Your task to perform on an android device: Clear the shopping cart on ebay. Add razer deathadder to the cart on ebay, then select checkout. Image 0: 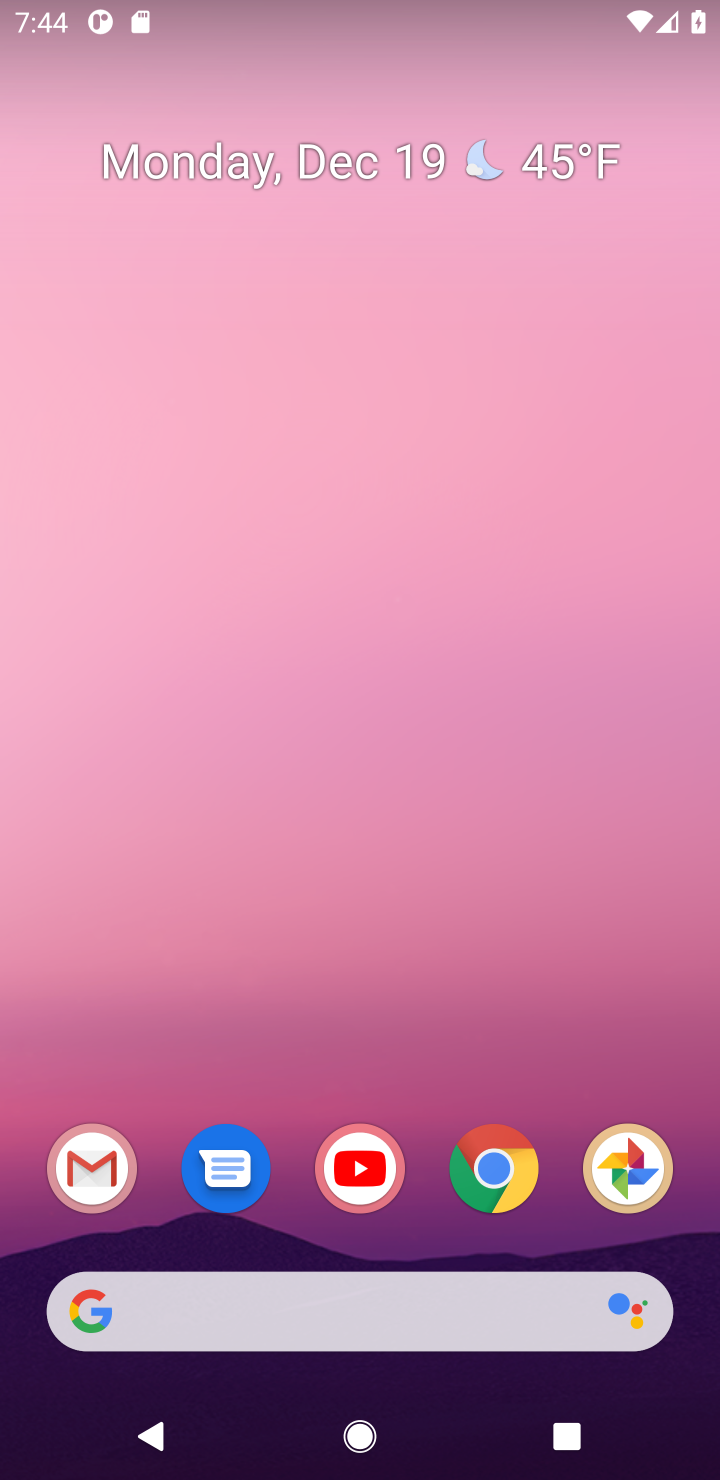
Step 0: click (497, 1188)
Your task to perform on an android device: Clear the shopping cart on ebay. Add razer deathadder to the cart on ebay, then select checkout. Image 1: 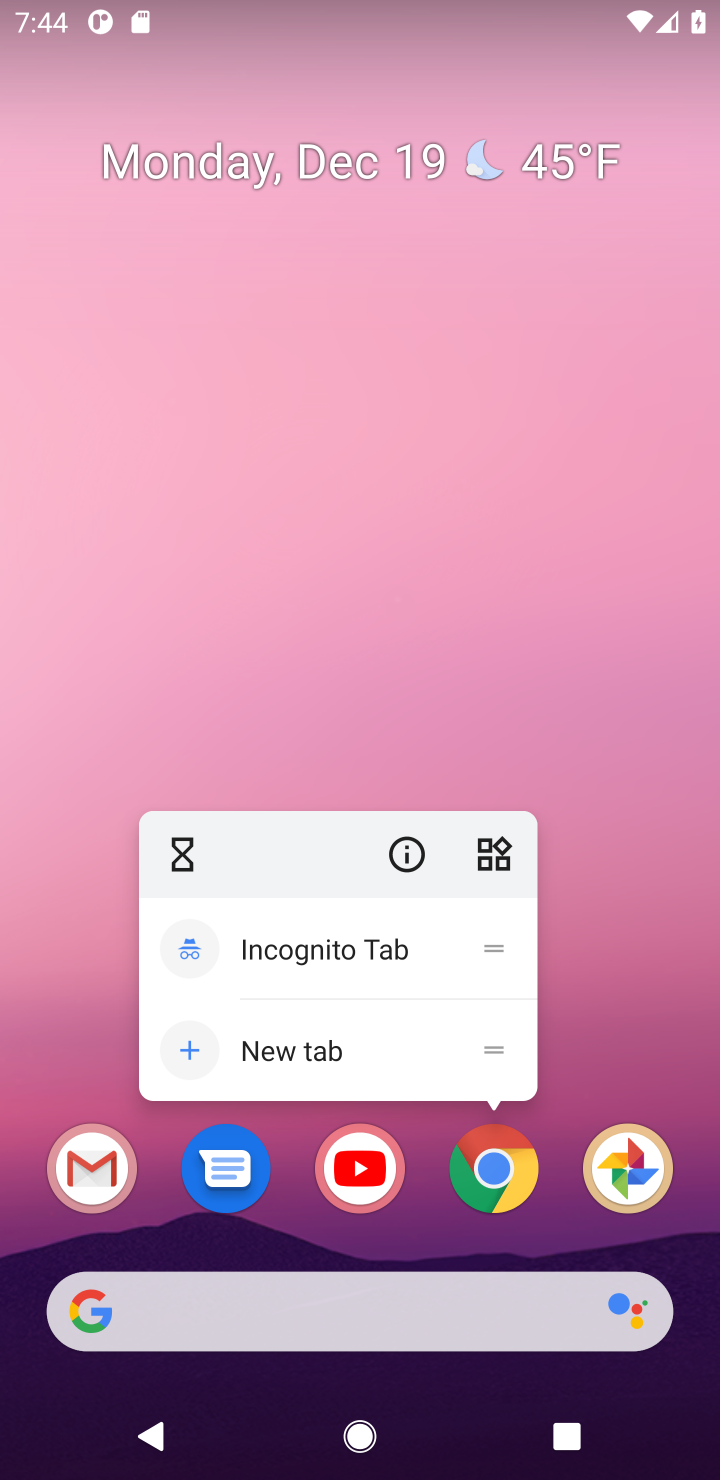
Step 1: click (483, 1161)
Your task to perform on an android device: Clear the shopping cart on ebay. Add razer deathadder to the cart on ebay, then select checkout. Image 2: 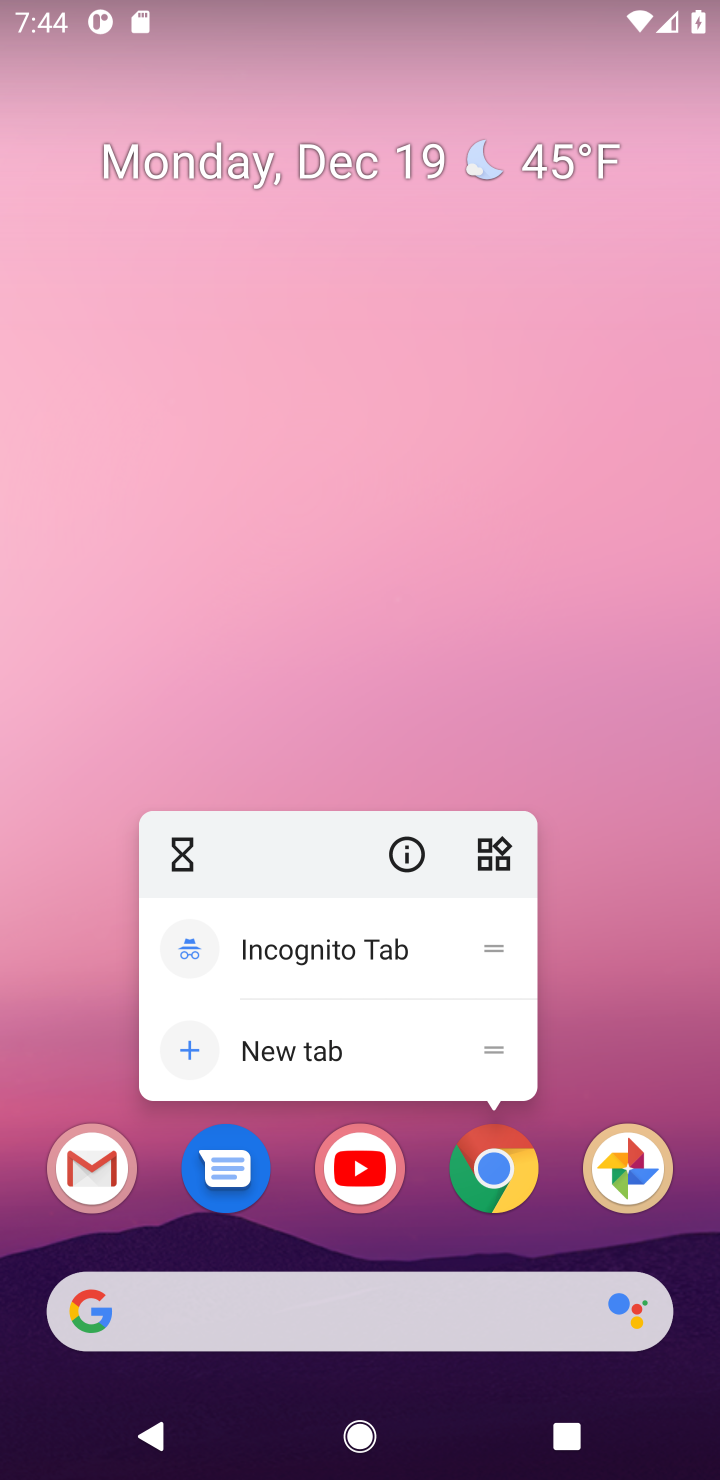
Step 2: click (493, 1172)
Your task to perform on an android device: Clear the shopping cart on ebay. Add razer deathadder to the cart on ebay, then select checkout. Image 3: 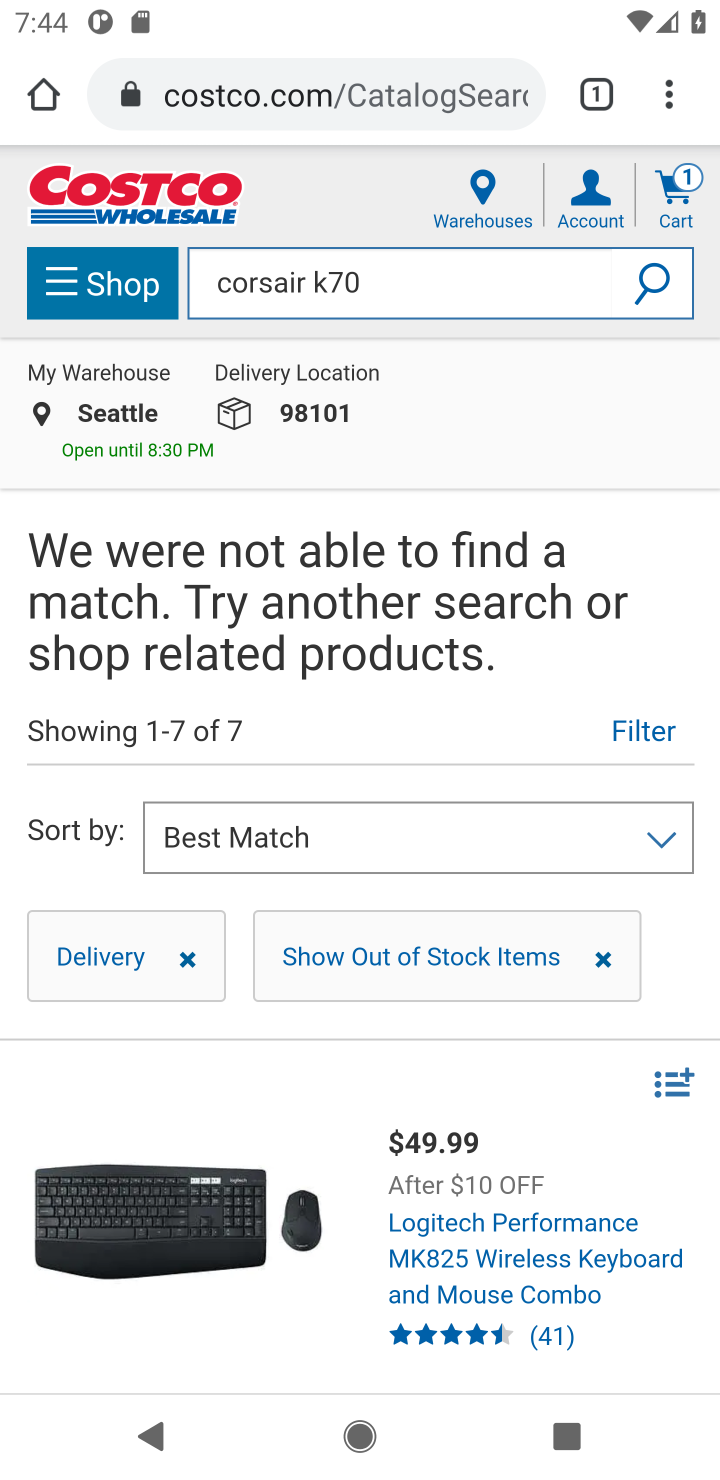
Step 3: click (268, 93)
Your task to perform on an android device: Clear the shopping cart on ebay. Add razer deathadder to the cart on ebay, then select checkout. Image 4: 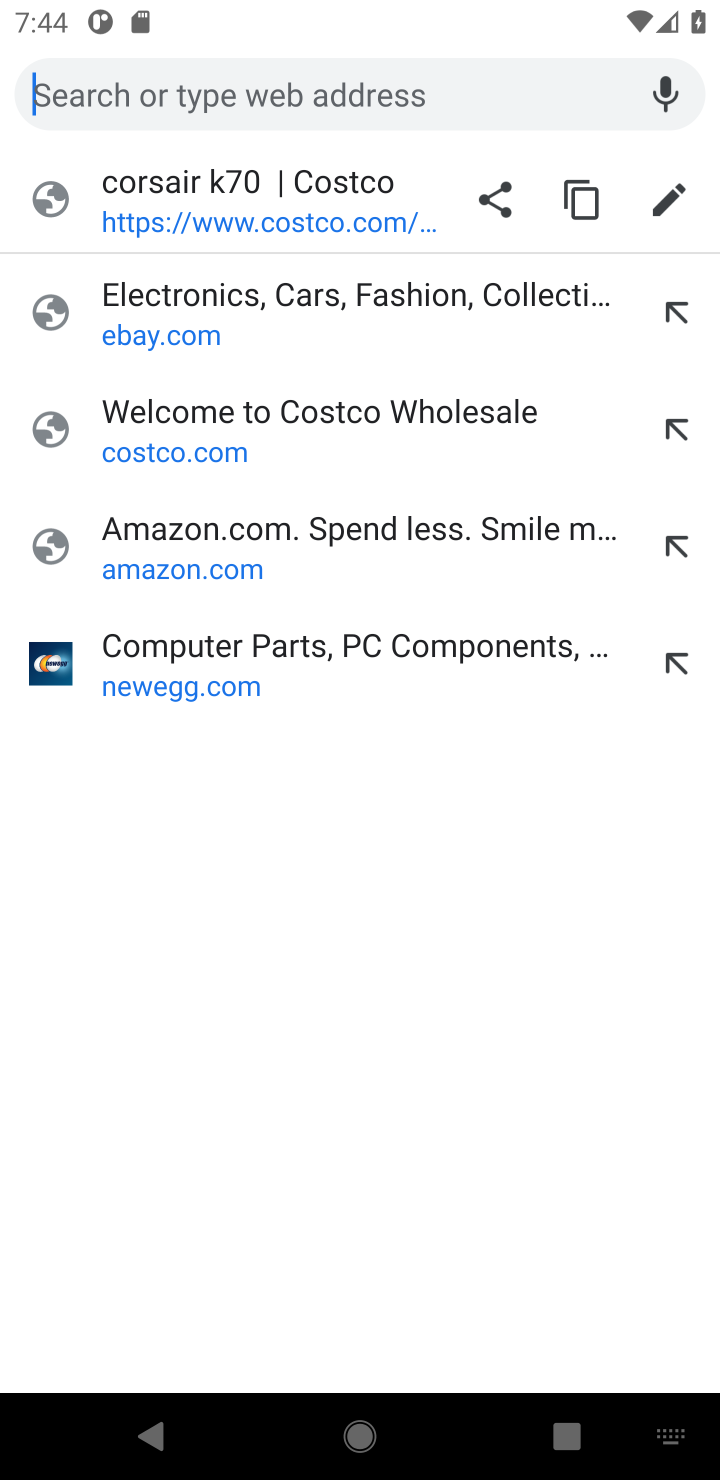
Step 4: click (129, 327)
Your task to perform on an android device: Clear the shopping cart on ebay. Add razer deathadder to the cart on ebay, then select checkout. Image 5: 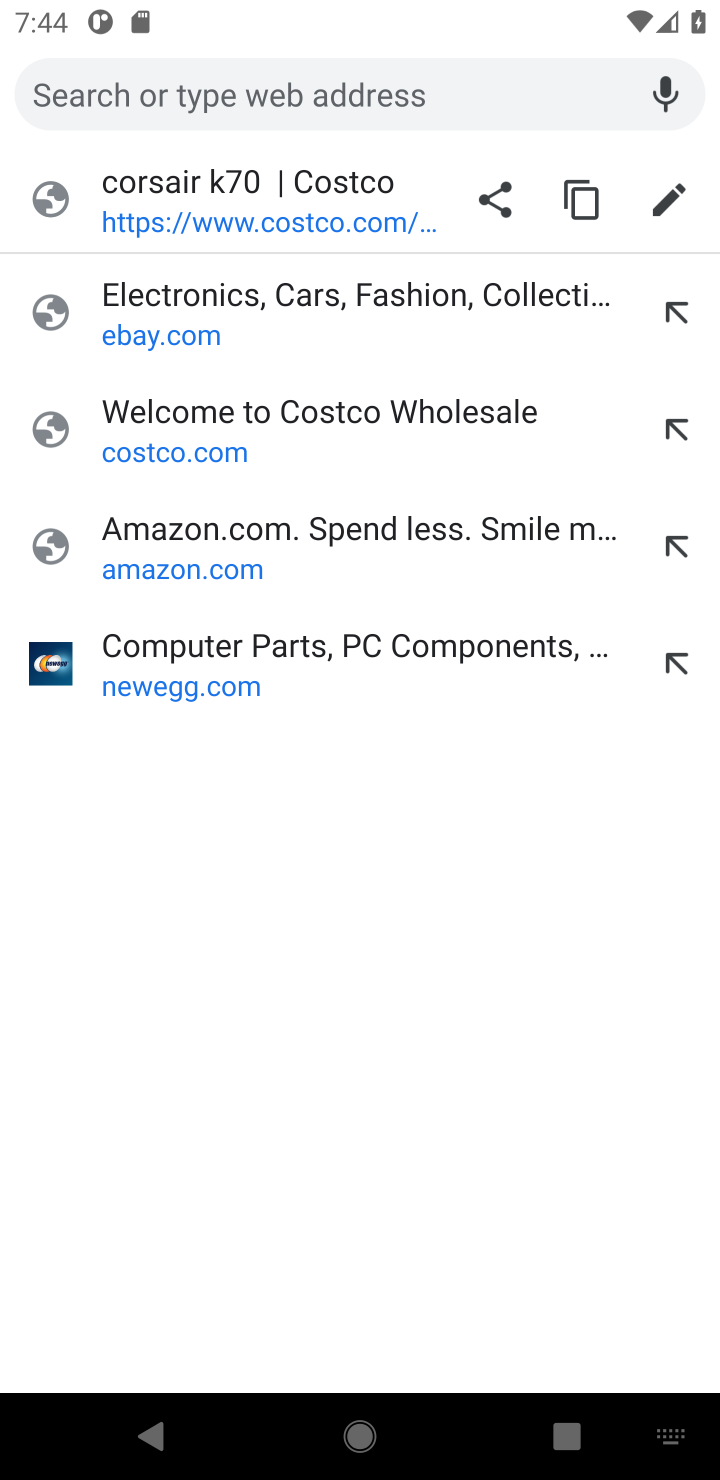
Step 5: click (129, 327)
Your task to perform on an android device: Clear the shopping cart on ebay. Add razer deathadder to the cart on ebay, then select checkout. Image 6: 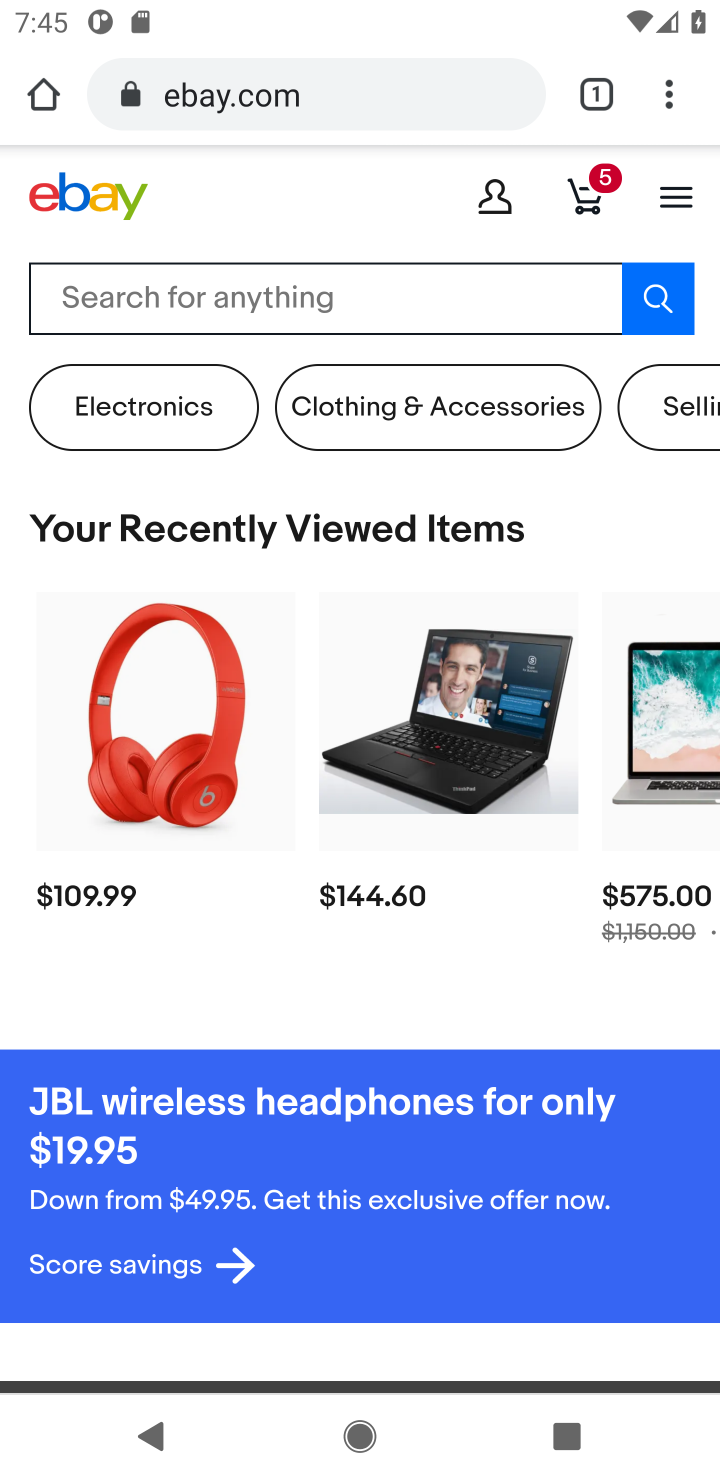
Step 6: click (582, 200)
Your task to perform on an android device: Clear the shopping cart on ebay. Add razer deathadder to the cart on ebay, then select checkout. Image 7: 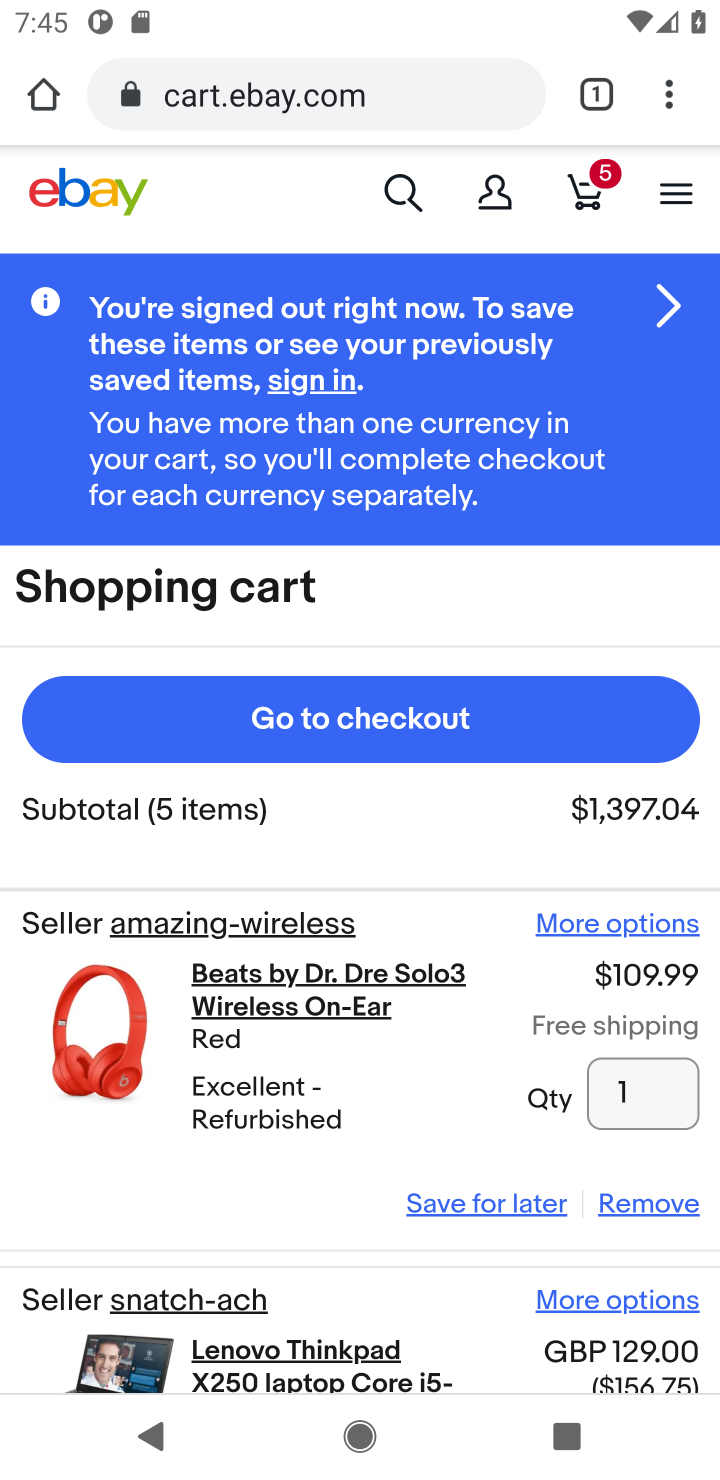
Step 7: click (624, 1204)
Your task to perform on an android device: Clear the shopping cart on ebay. Add razer deathadder to the cart on ebay, then select checkout. Image 8: 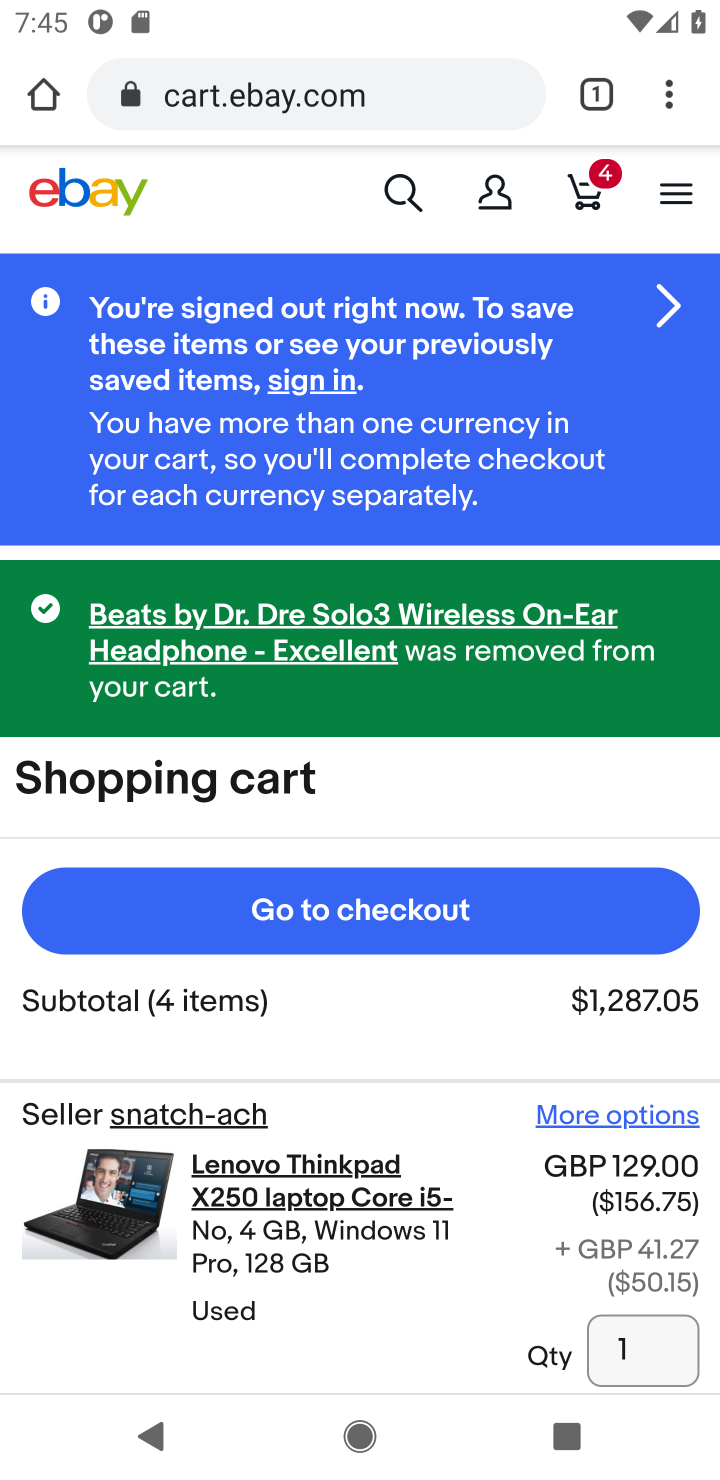
Step 8: drag from (511, 1130) to (480, 549)
Your task to perform on an android device: Clear the shopping cart on ebay. Add razer deathadder to the cart on ebay, then select checkout. Image 9: 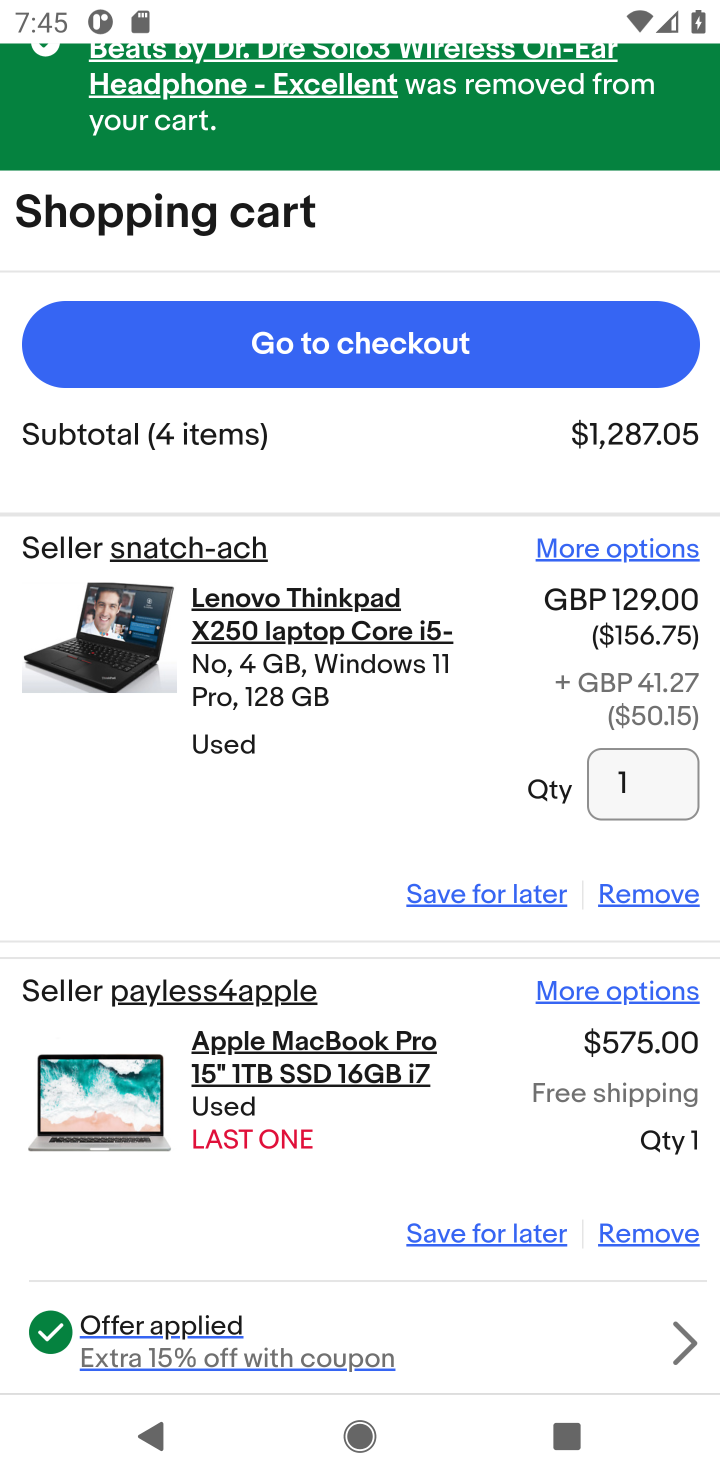
Step 9: click (649, 890)
Your task to perform on an android device: Clear the shopping cart on ebay. Add razer deathadder to the cart on ebay, then select checkout. Image 10: 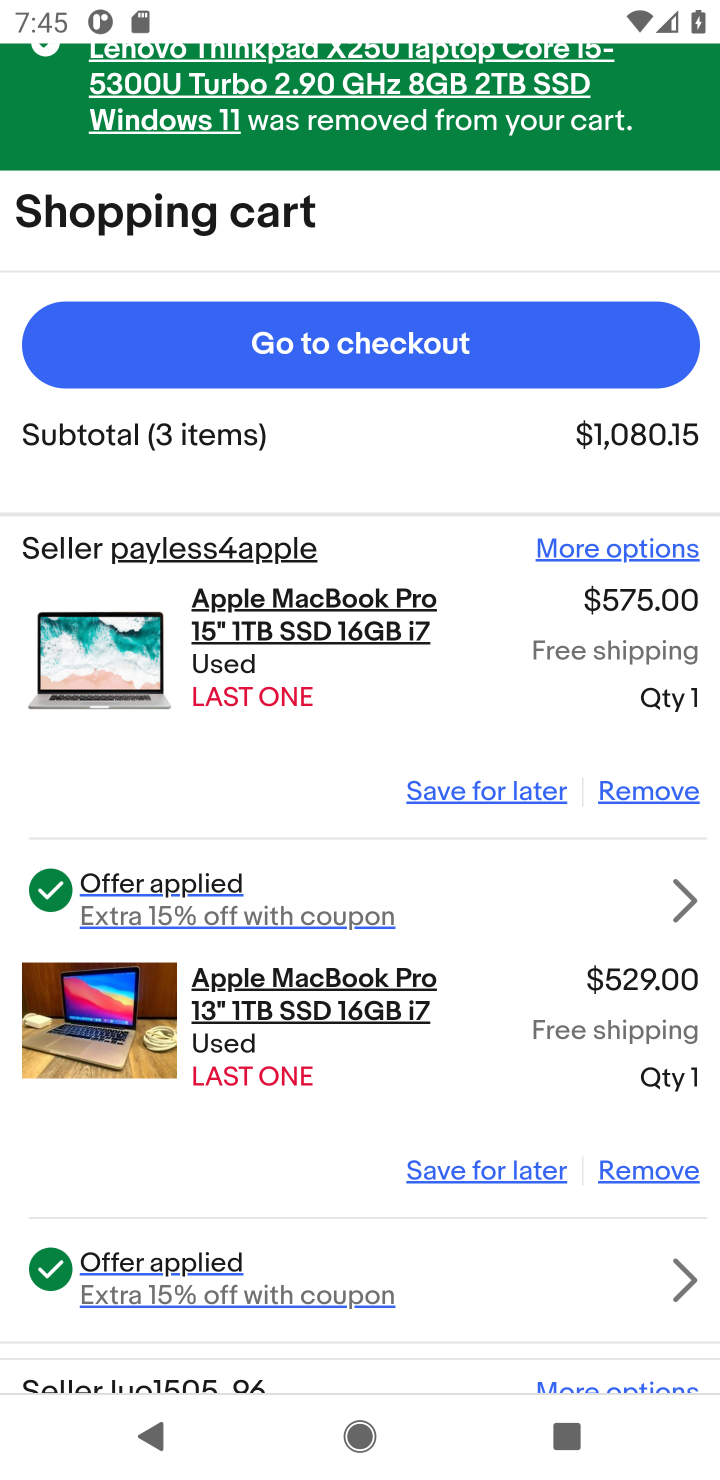
Step 10: click (644, 801)
Your task to perform on an android device: Clear the shopping cart on ebay. Add razer deathadder to the cart on ebay, then select checkout. Image 11: 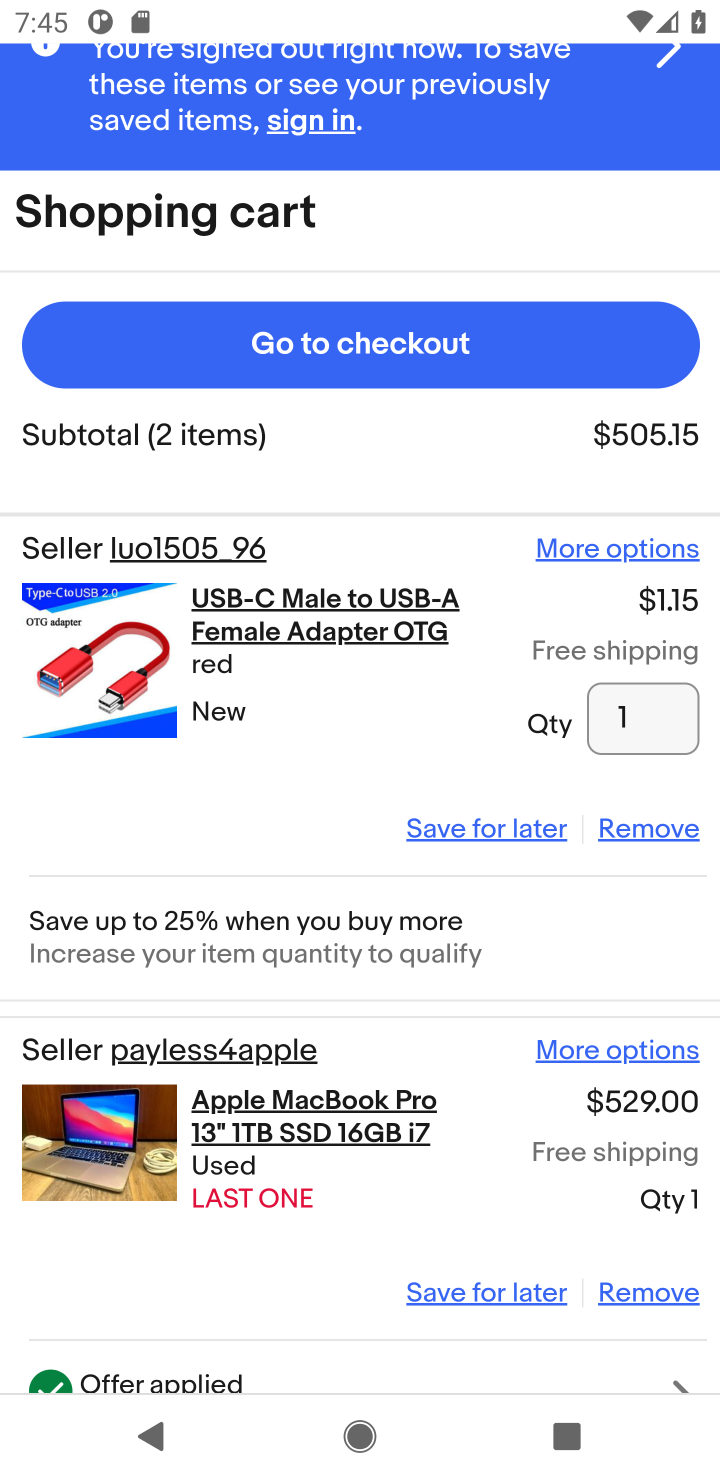
Step 11: click (627, 838)
Your task to perform on an android device: Clear the shopping cart on ebay. Add razer deathadder to the cart on ebay, then select checkout. Image 12: 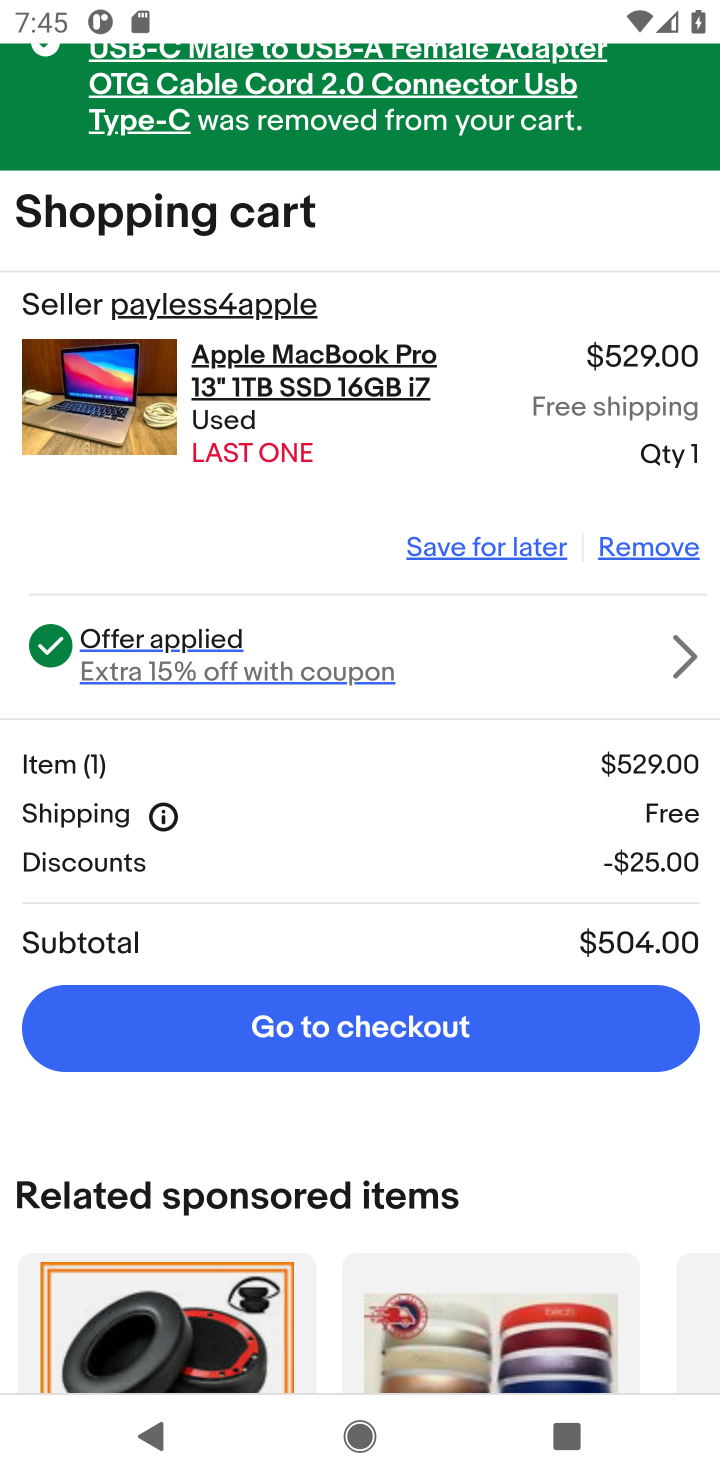
Step 12: click (650, 535)
Your task to perform on an android device: Clear the shopping cart on ebay. Add razer deathadder to the cart on ebay, then select checkout. Image 13: 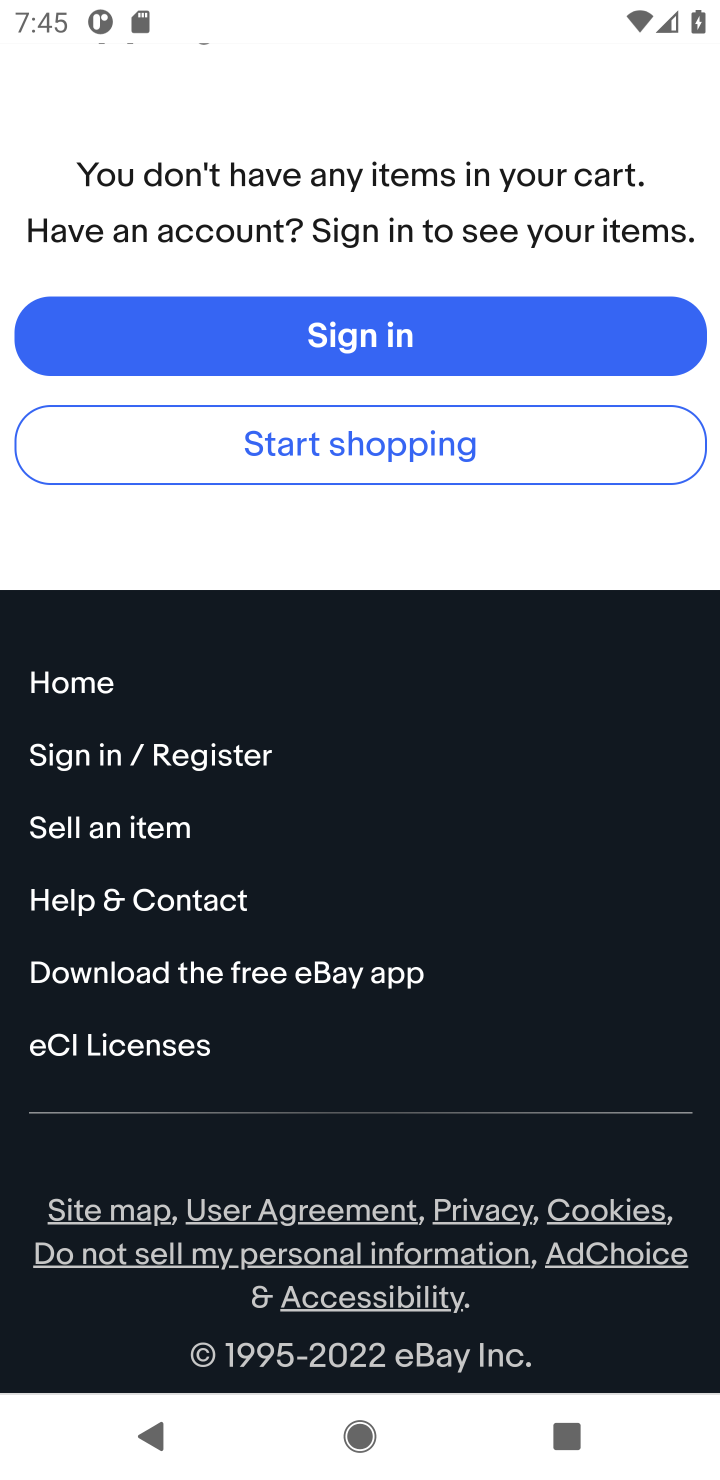
Step 13: drag from (650, 535) to (717, 1074)
Your task to perform on an android device: Clear the shopping cart on ebay. Add razer deathadder to the cart on ebay, then select checkout. Image 14: 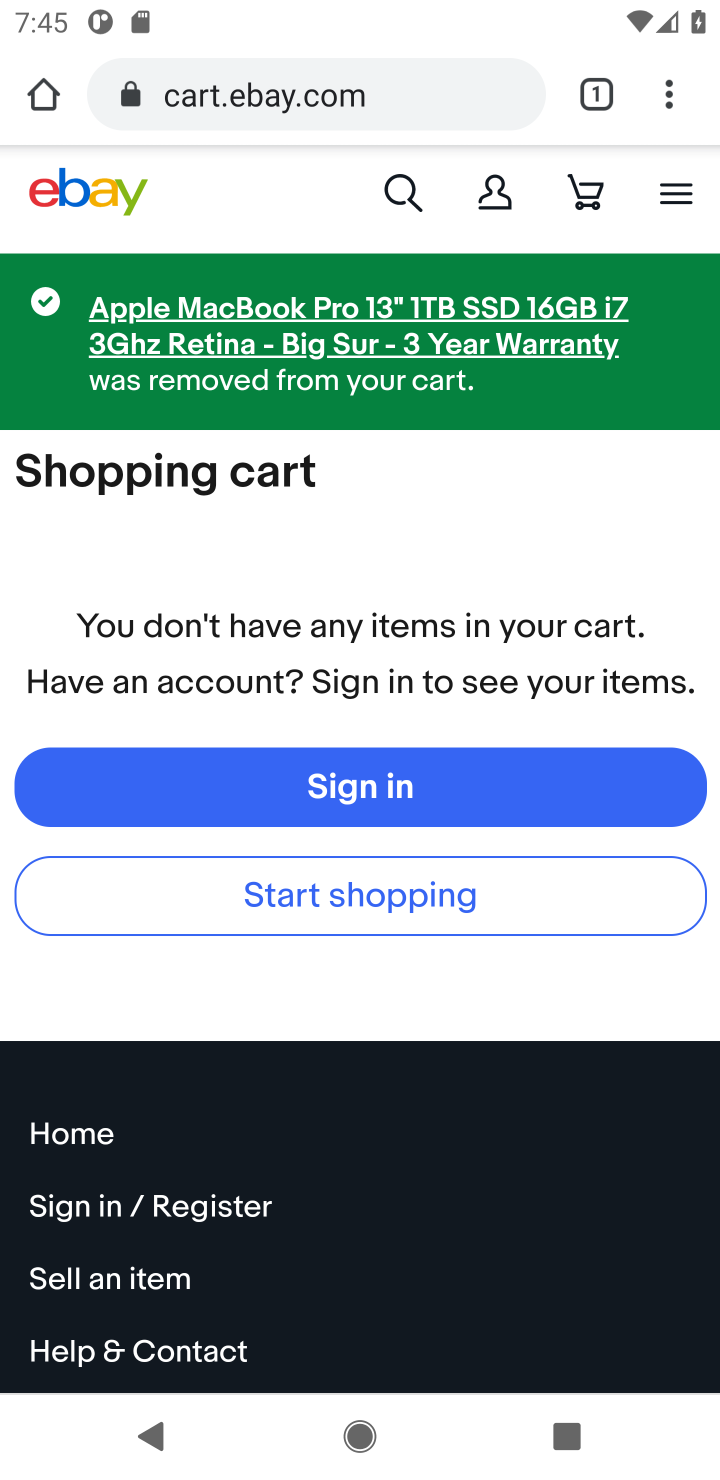
Step 14: click (405, 188)
Your task to perform on an android device: Clear the shopping cart on ebay. Add razer deathadder to the cart on ebay, then select checkout. Image 15: 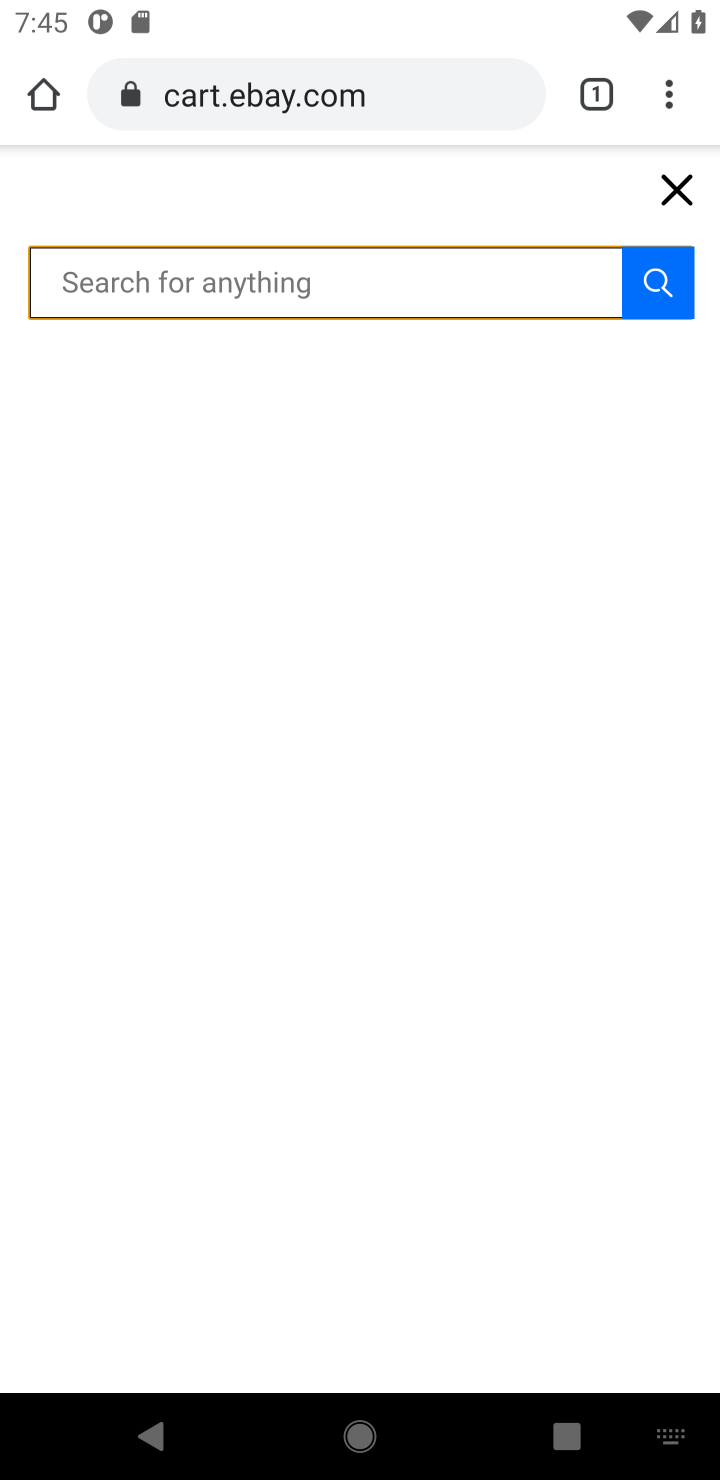
Step 15: type "razer deathadder"
Your task to perform on an android device: Clear the shopping cart on ebay. Add razer deathadder to the cart on ebay, then select checkout. Image 16: 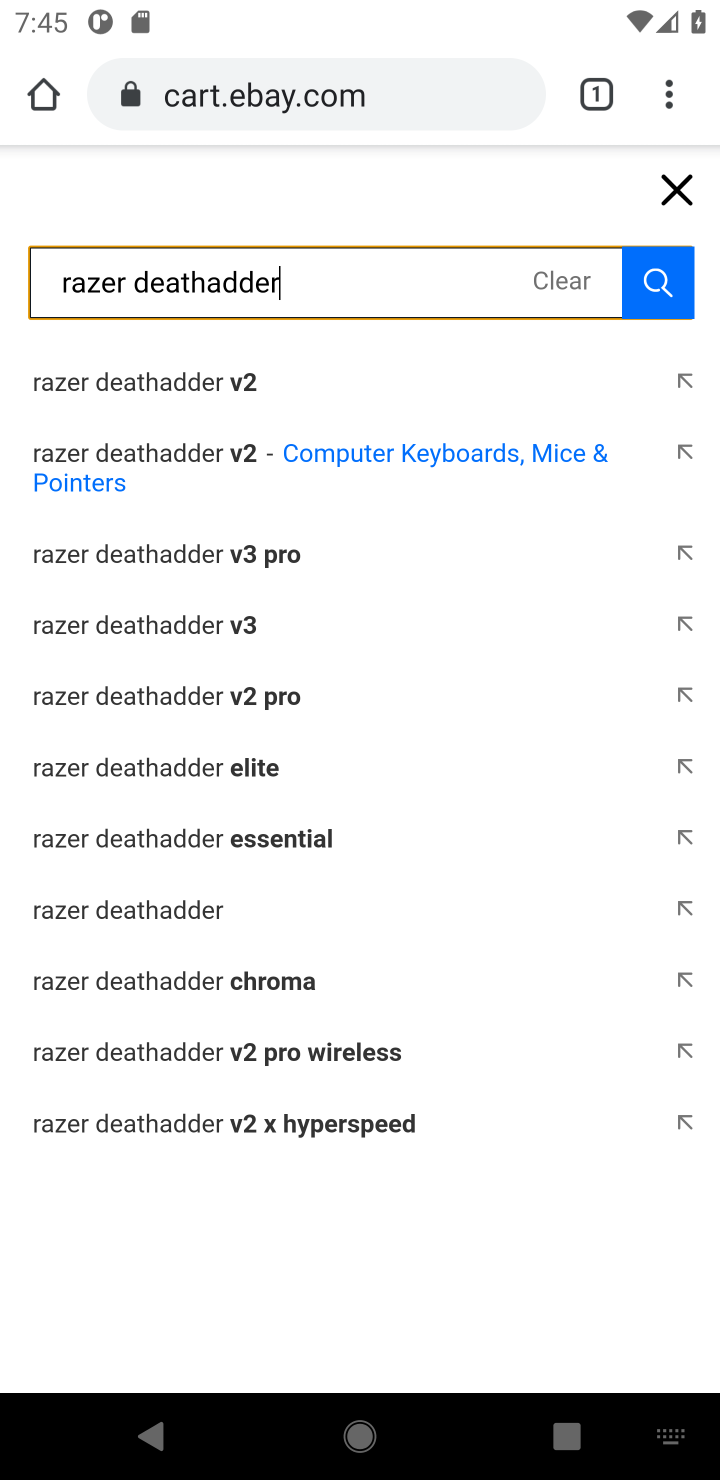
Step 16: click (73, 925)
Your task to perform on an android device: Clear the shopping cart on ebay. Add razer deathadder to the cart on ebay, then select checkout. Image 17: 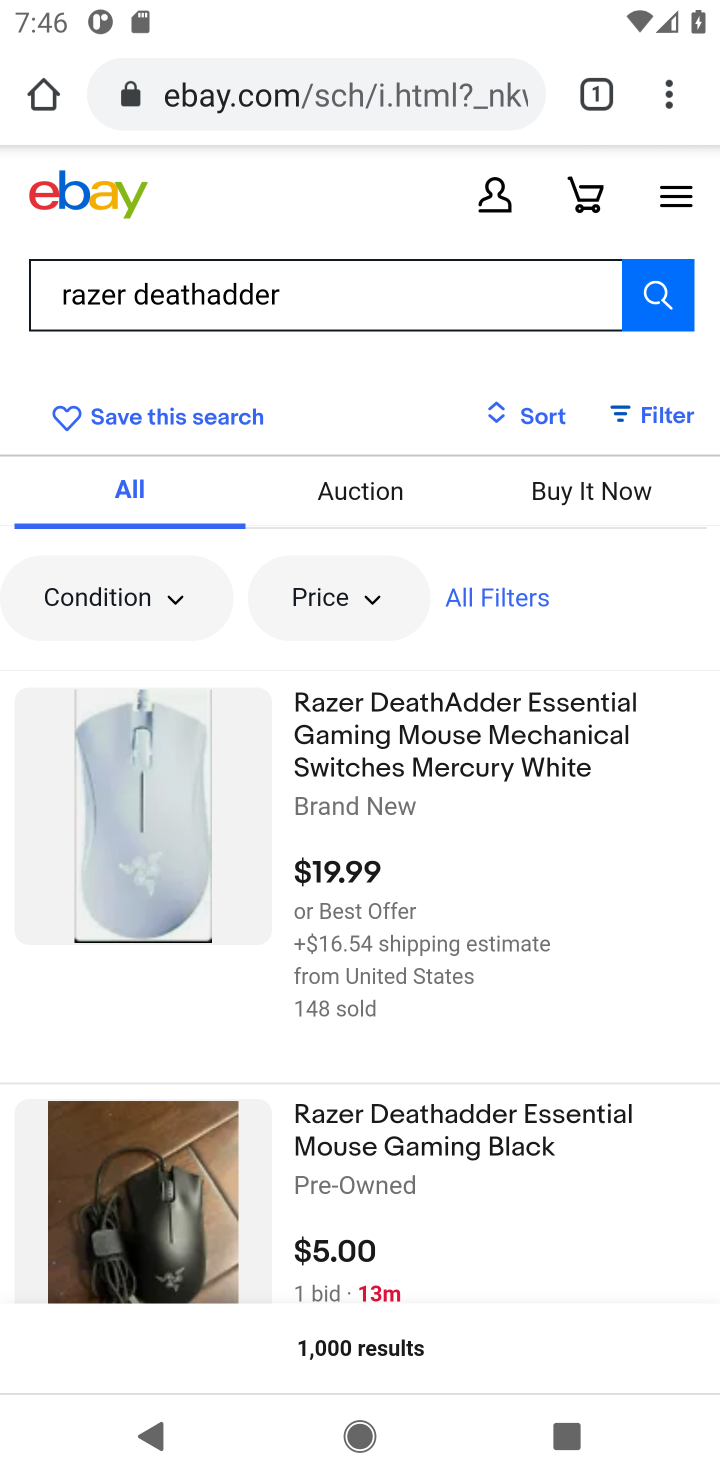
Step 17: click (436, 742)
Your task to perform on an android device: Clear the shopping cart on ebay. Add razer deathadder to the cart on ebay, then select checkout. Image 18: 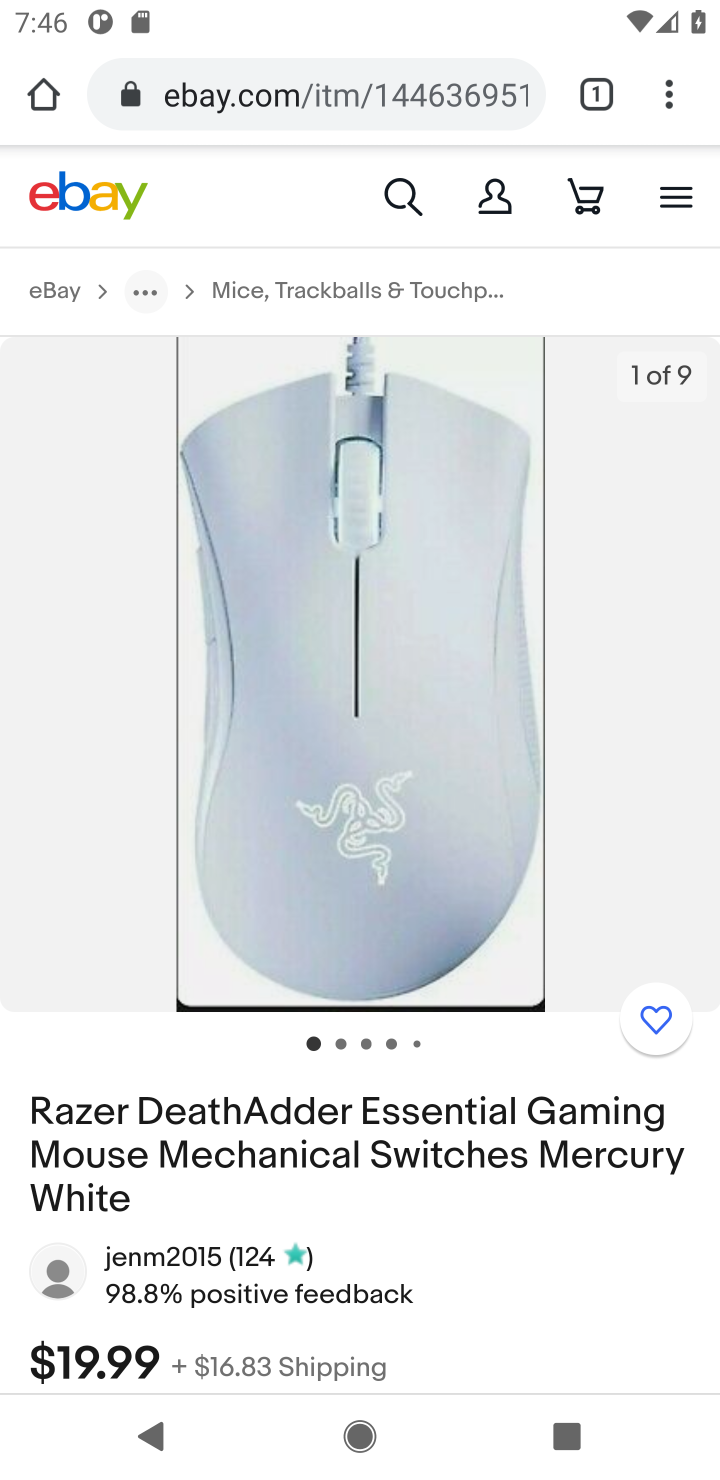
Step 18: drag from (407, 1175) to (372, 492)
Your task to perform on an android device: Clear the shopping cart on ebay. Add razer deathadder to the cart on ebay, then select checkout. Image 19: 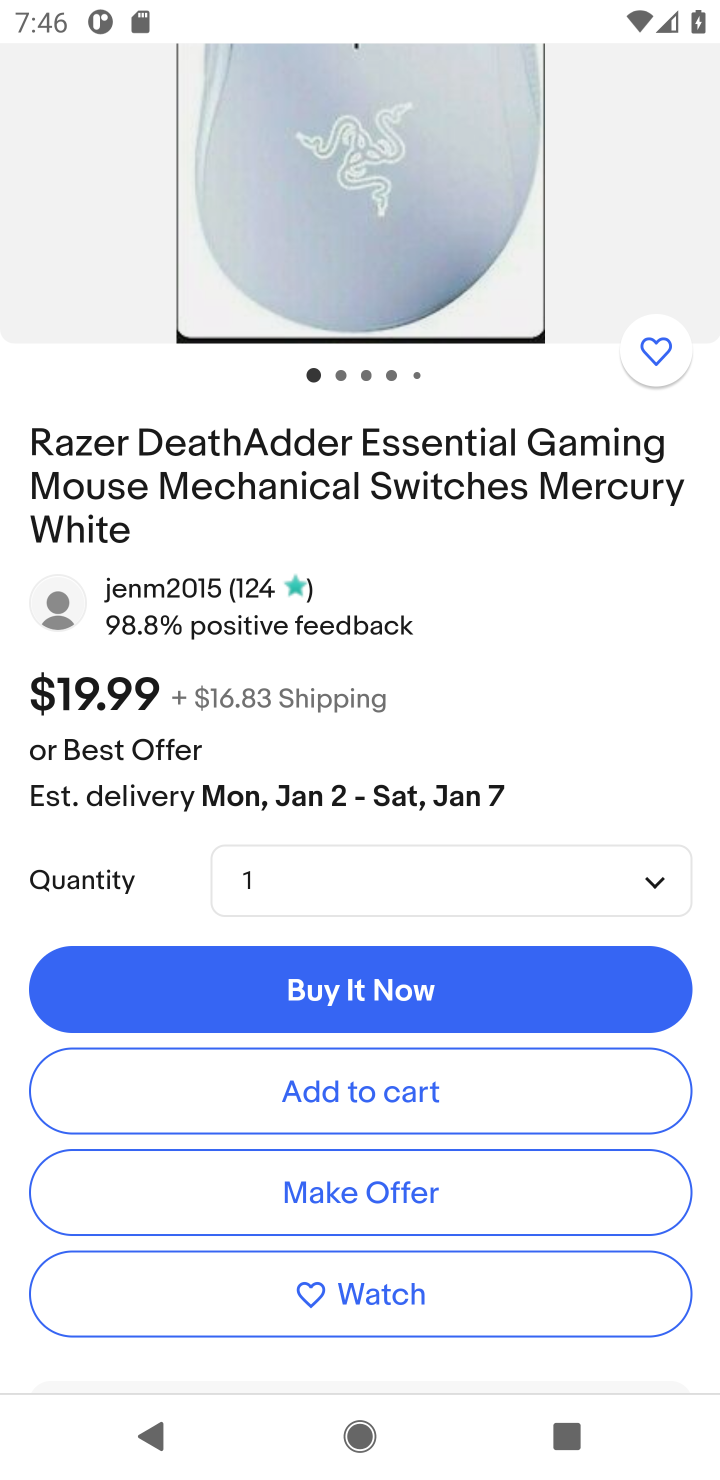
Step 19: click (351, 1092)
Your task to perform on an android device: Clear the shopping cart on ebay. Add razer deathadder to the cart on ebay, then select checkout. Image 20: 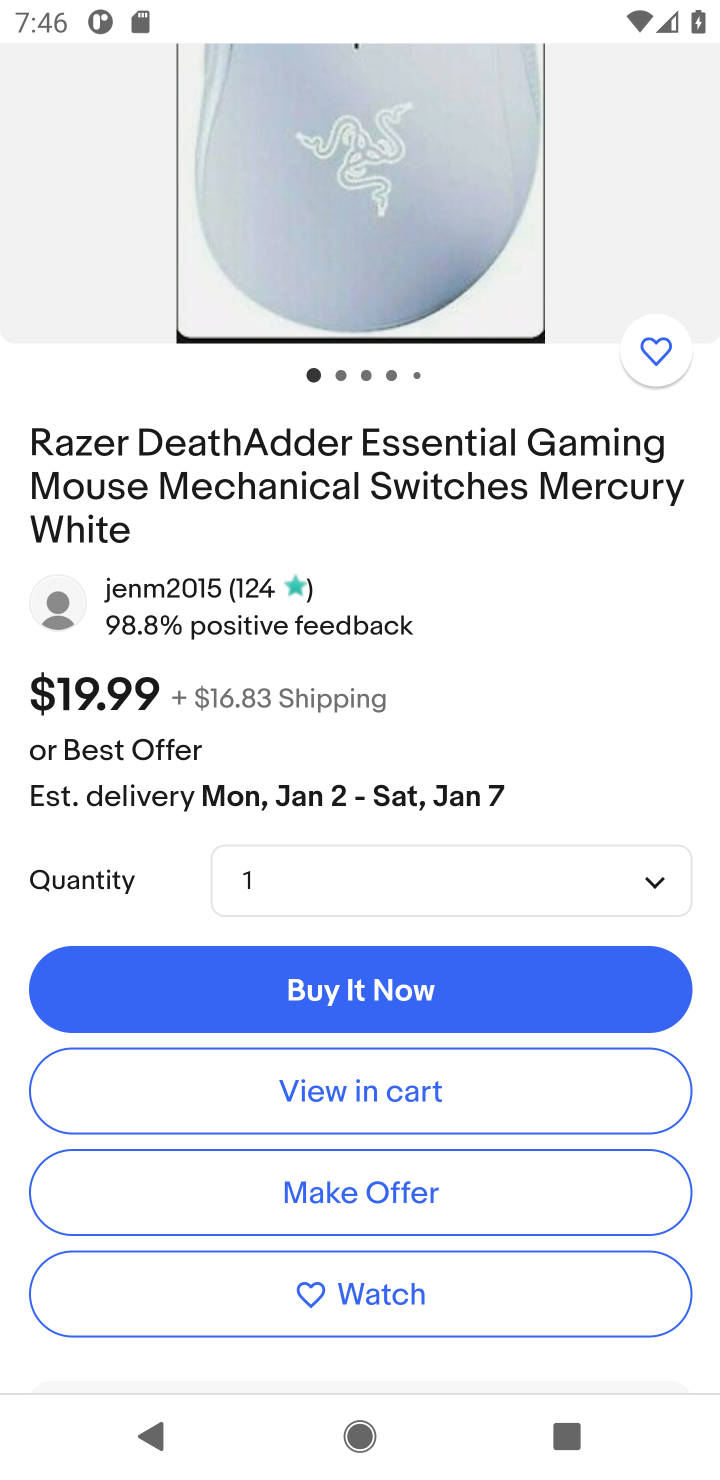
Step 20: click (351, 1092)
Your task to perform on an android device: Clear the shopping cart on ebay. Add razer deathadder to the cart on ebay, then select checkout. Image 21: 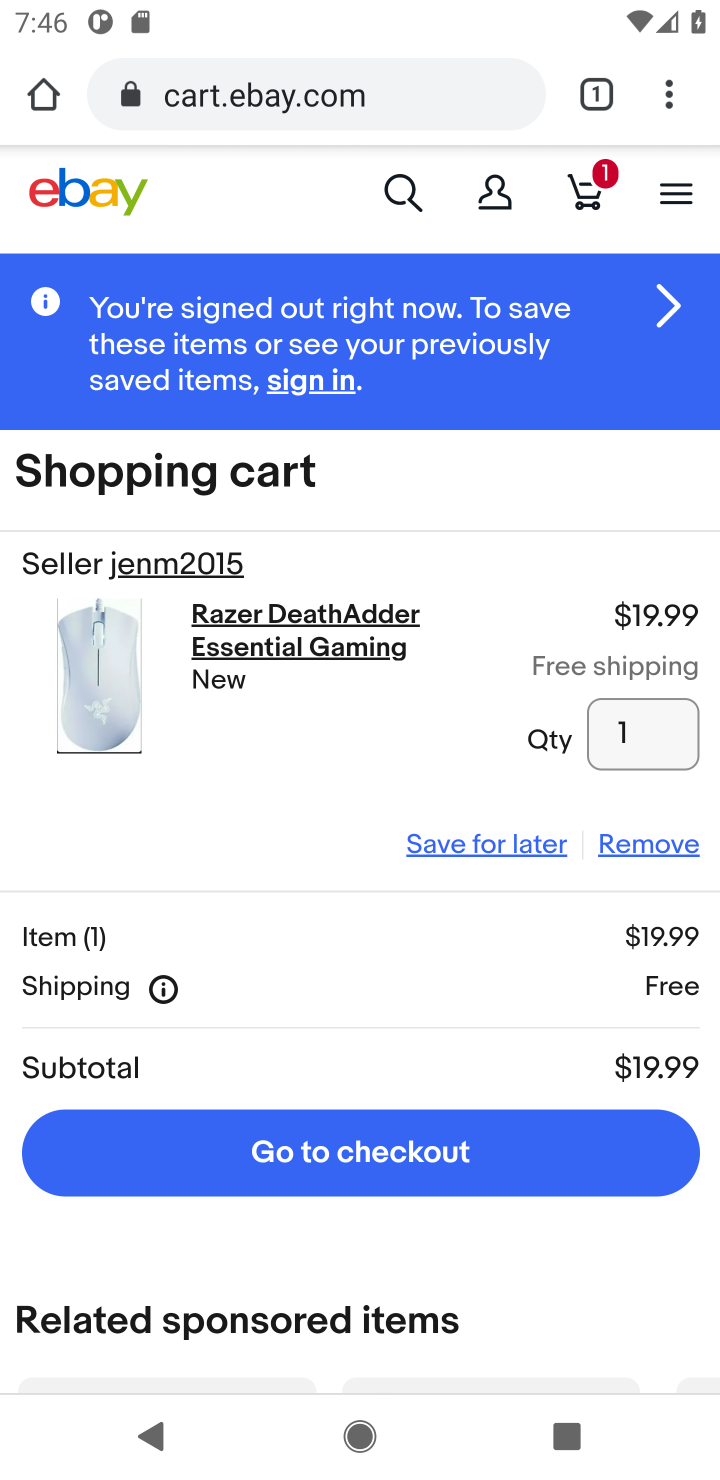
Step 21: click (323, 1146)
Your task to perform on an android device: Clear the shopping cart on ebay. Add razer deathadder to the cart on ebay, then select checkout. Image 22: 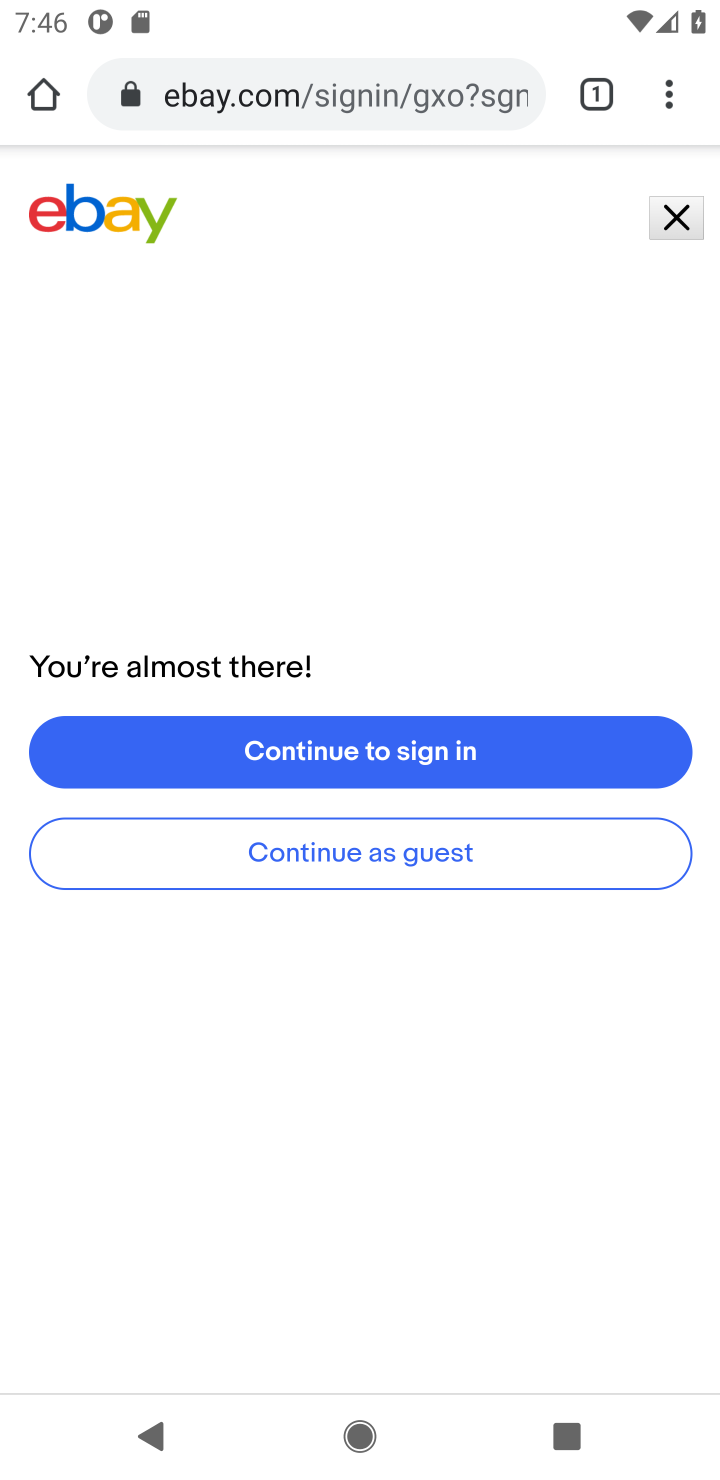
Step 22: task complete